Your task to perform on an android device: delete the emails in spam in the gmail app Image 0: 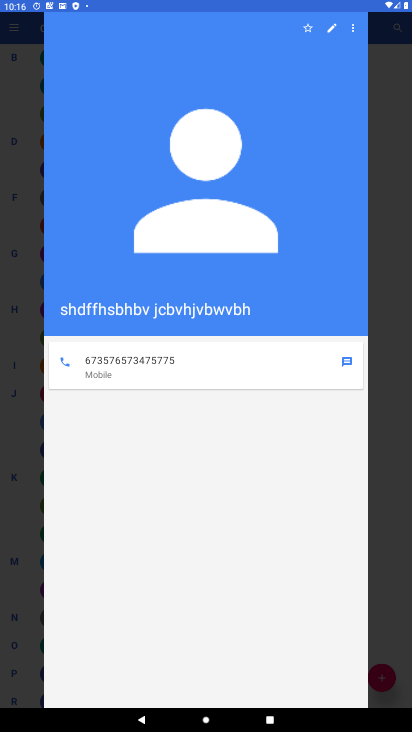
Step 0: press home button
Your task to perform on an android device: delete the emails in spam in the gmail app Image 1: 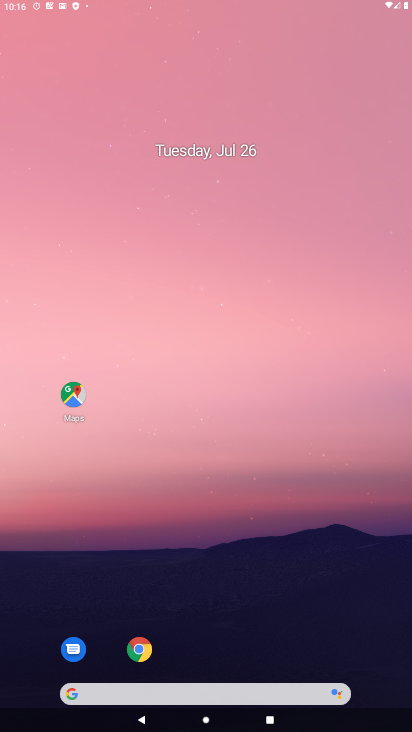
Step 1: drag from (220, 631) to (297, 110)
Your task to perform on an android device: delete the emails in spam in the gmail app Image 2: 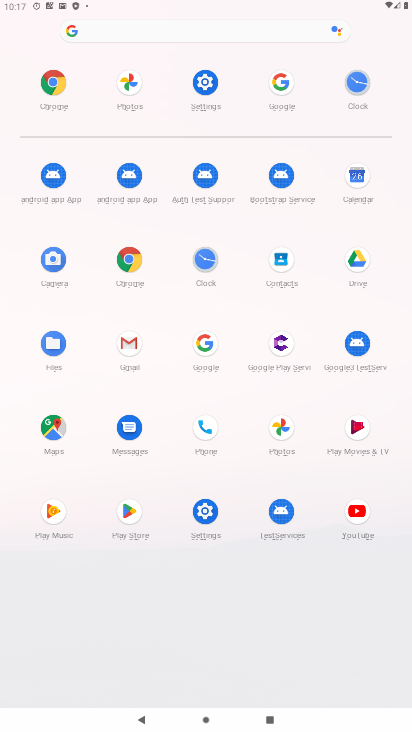
Step 2: click (133, 349)
Your task to perform on an android device: delete the emails in spam in the gmail app Image 3: 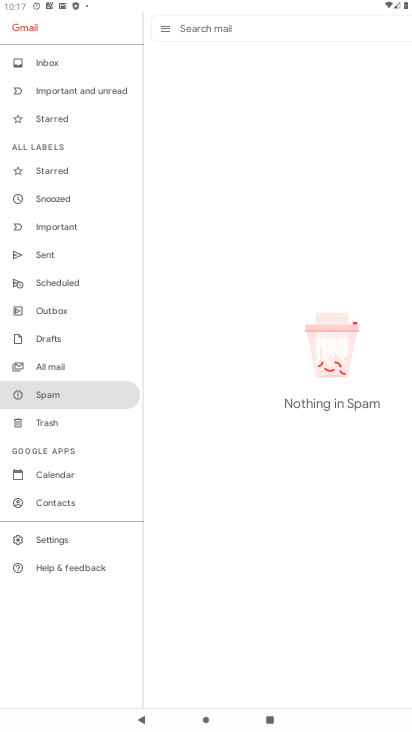
Step 3: click (74, 402)
Your task to perform on an android device: delete the emails in spam in the gmail app Image 4: 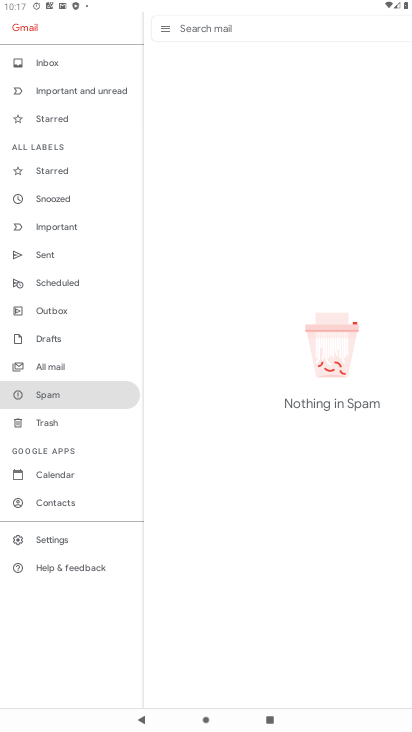
Step 4: click (345, 284)
Your task to perform on an android device: delete the emails in spam in the gmail app Image 5: 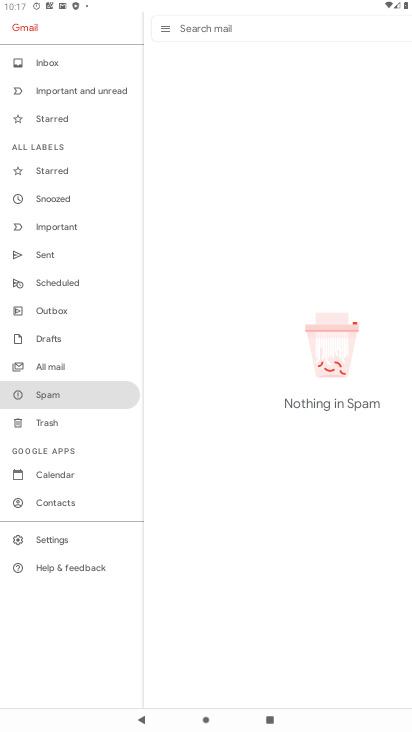
Step 5: task complete